Your task to perform on an android device: Open Youtube and go to the subscriptions tab Image 0: 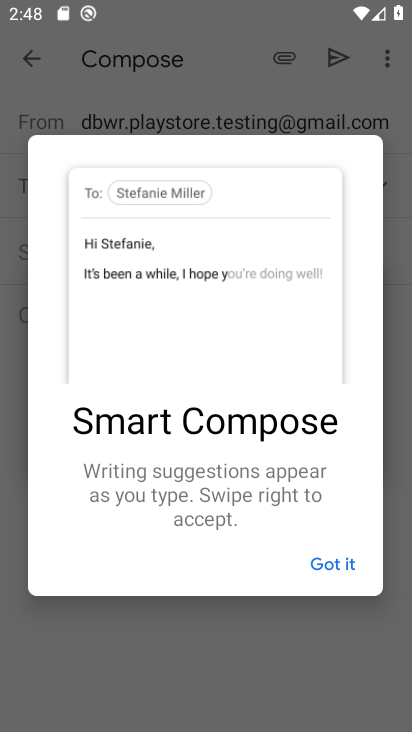
Step 0: press home button
Your task to perform on an android device: Open Youtube and go to the subscriptions tab Image 1: 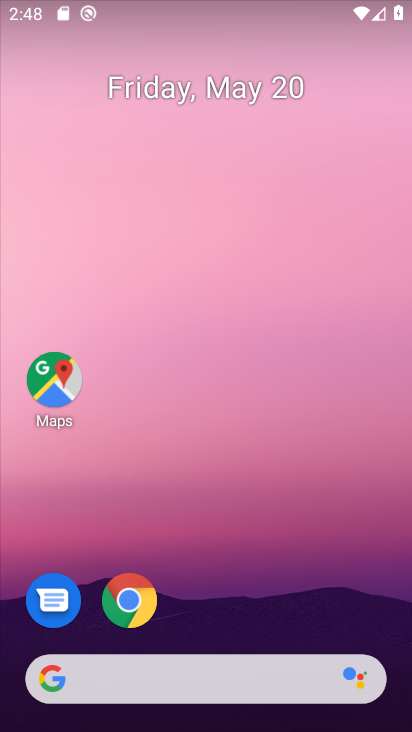
Step 1: drag from (336, 625) to (328, 215)
Your task to perform on an android device: Open Youtube and go to the subscriptions tab Image 2: 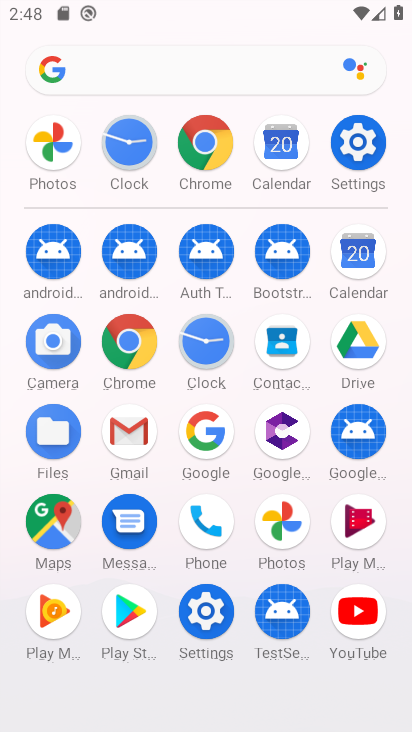
Step 2: click (368, 622)
Your task to perform on an android device: Open Youtube and go to the subscriptions tab Image 3: 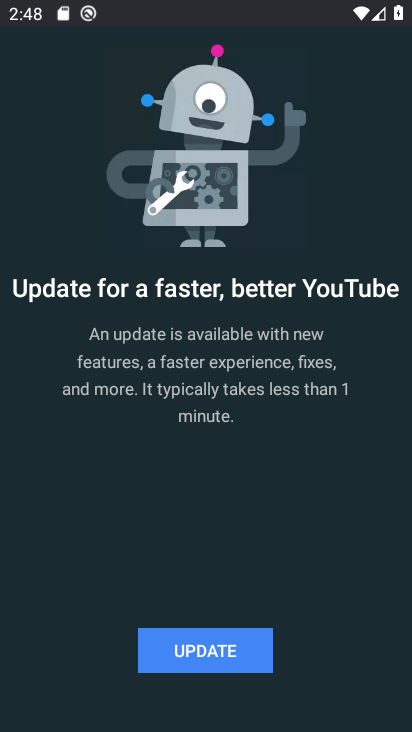
Step 3: click (260, 663)
Your task to perform on an android device: Open Youtube and go to the subscriptions tab Image 4: 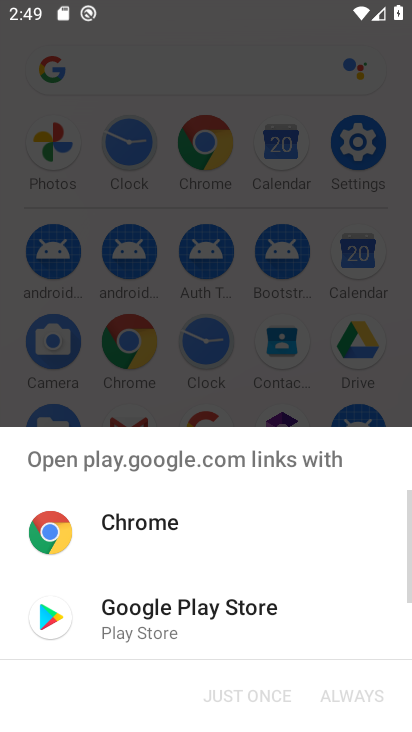
Step 4: click (142, 616)
Your task to perform on an android device: Open Youtube and go to the subscriptions tab Image 5: 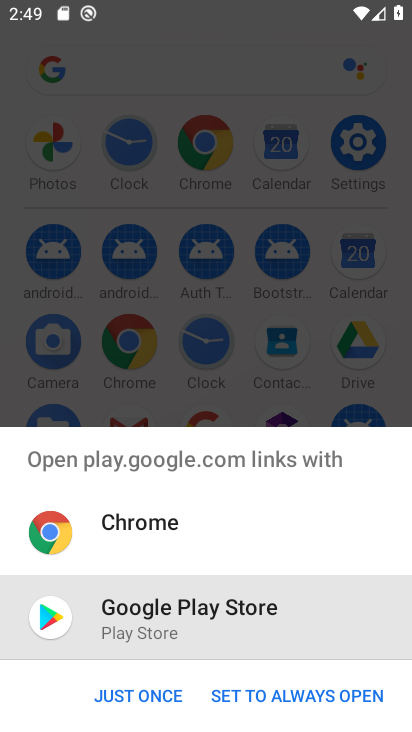
Step 5: click (149, 697)
Your task to perform on an android device: Open Youtube and go to the subscriptions tab Image 6: 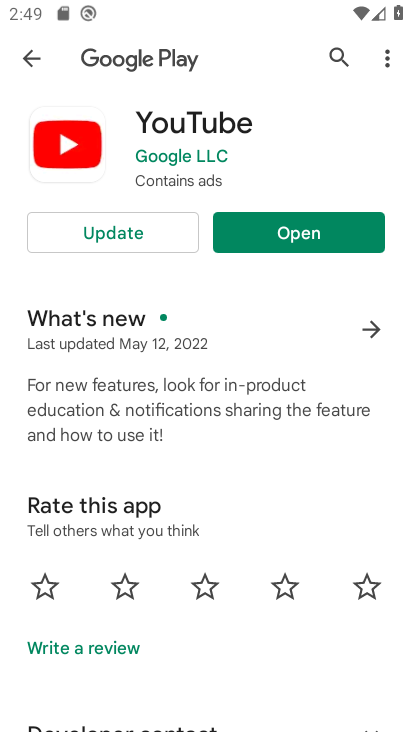
Step 6: click (134, 249)
Your task to perform on an android device: Open Youtube and go to the subscriptions tab Image 7: 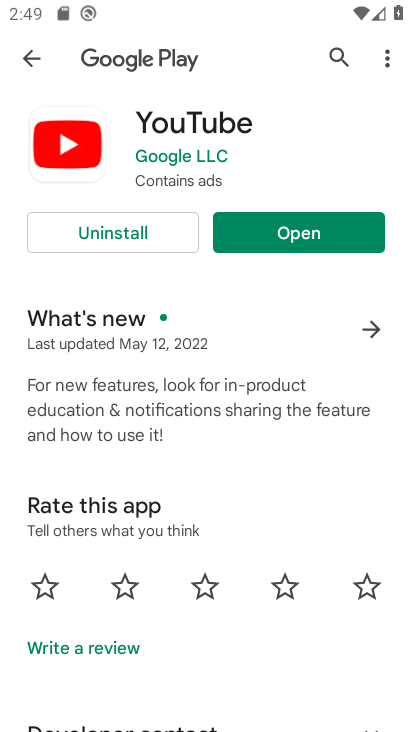
Step 7: click (357, 241)
Your task to perform on an android device: Open Youtube and go to the subscriptions tab Image 8: 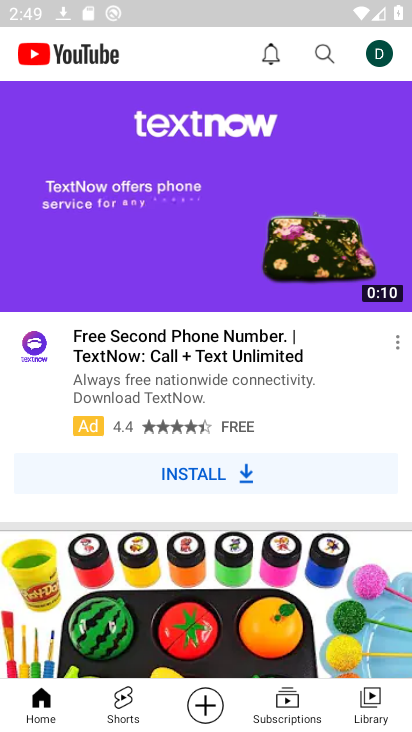
Step 8: click (301, 714)
Your task to perform on an android device: Open Youtube and go to the subscriptions tab Image 9: 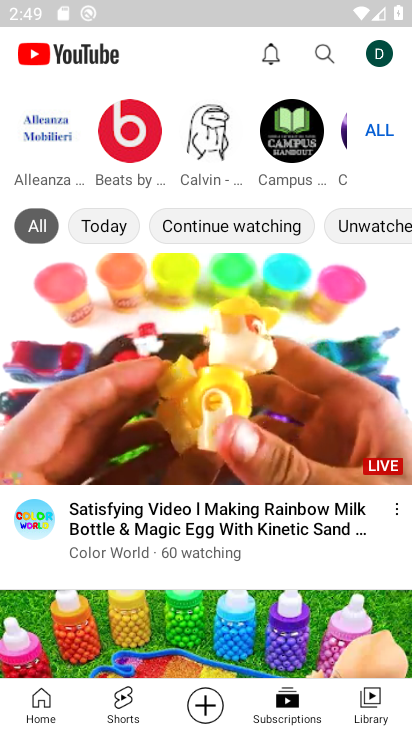
Step 9: task complete